Your task to perform on an android device: Open Google Chrome and open the bookmarks view Image 0: 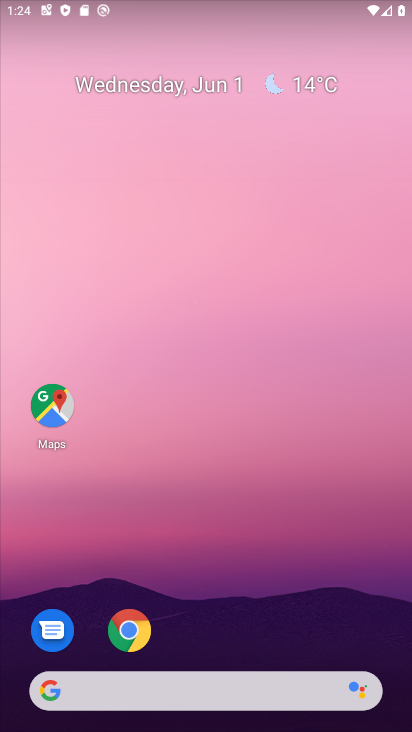
Step 0: press home button
Your task to perform on an android device: Open Google Chrome and open the bookmarks view Image 1: 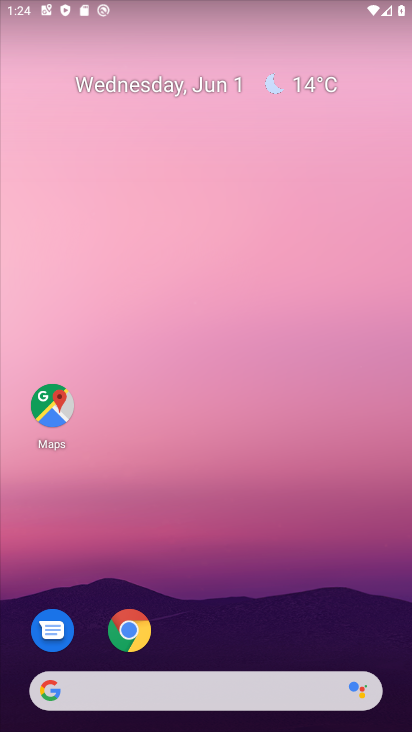
Step 1: click (126, 623)
Your task to perform on an android device: Open Google Chrome and open the bookmarks view Image 2: 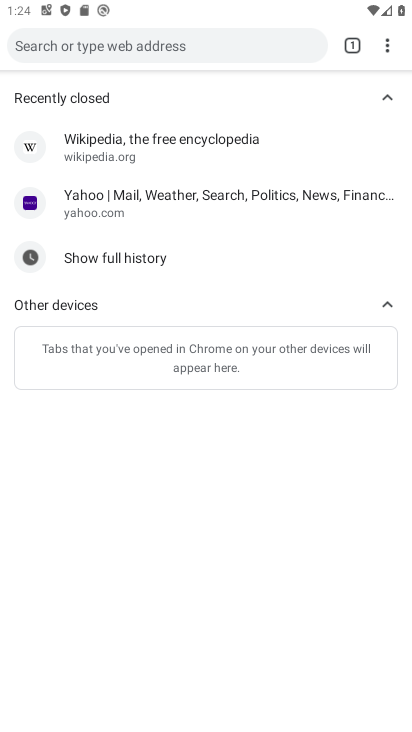
Step 2: click (387, 44)
Your task to perform on an android device: Open Google Chrome and open the bookmarks view Image 3: 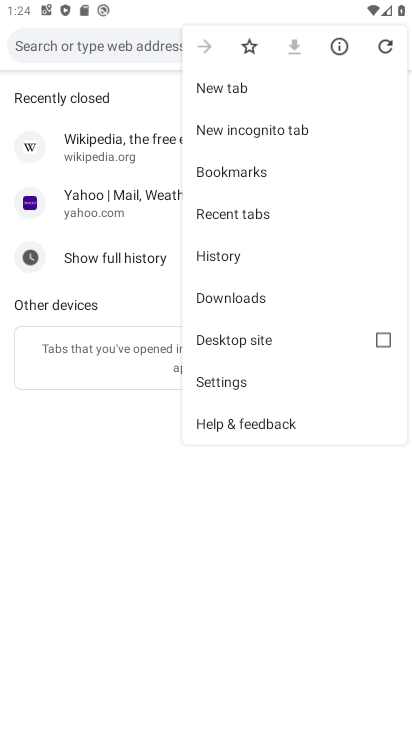
Step 3: click (277, 164)
Your task to perform on an android device: Open Google Chrome and open the bookmarks view Image 4: 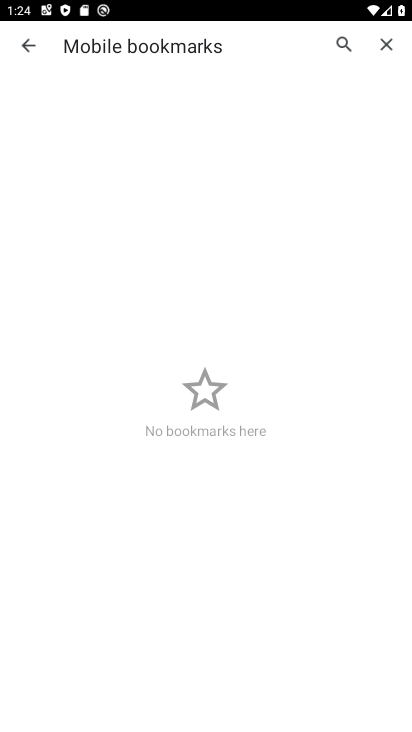
Step 4: task complete